Your task to perform on an android device: Go to Yahoo.com Image 0: 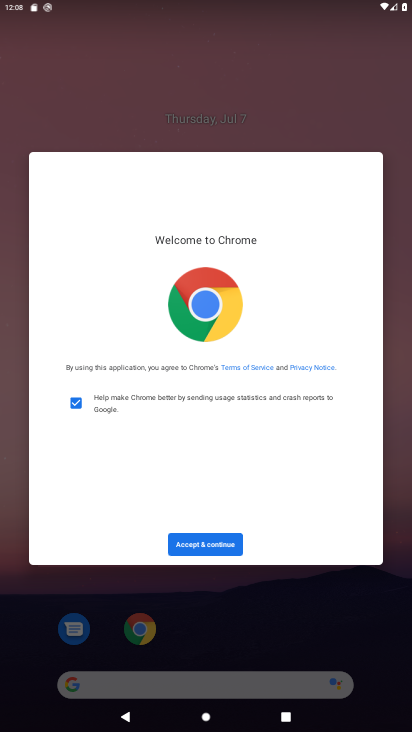
Step 0: click (222, 545)
Your task to perform on an android device: Go to Yahoo.com Image 1: 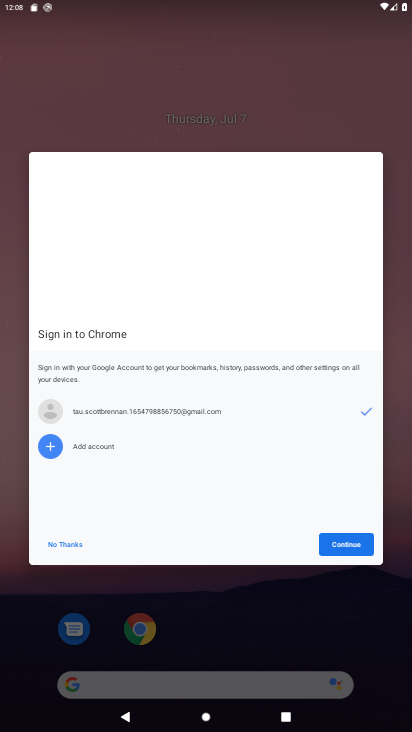
Step 1: click (340, 547)
Your task to perform on an android device: Go to Yahoo.com Image 2: 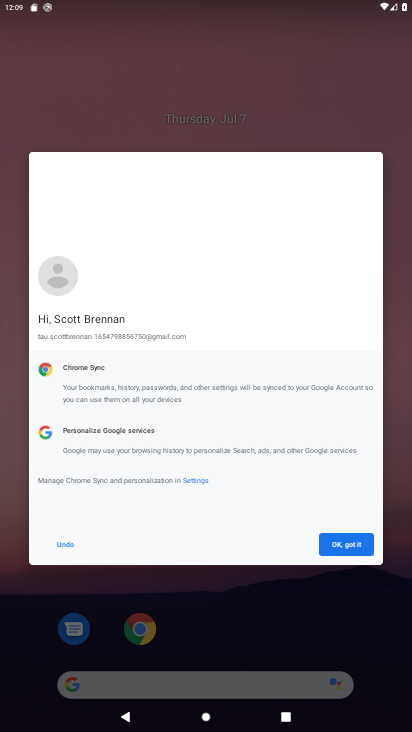
Step 2: click (342, 546)
Your task to perform on an android device: Go to Yahoo.com Image 3: 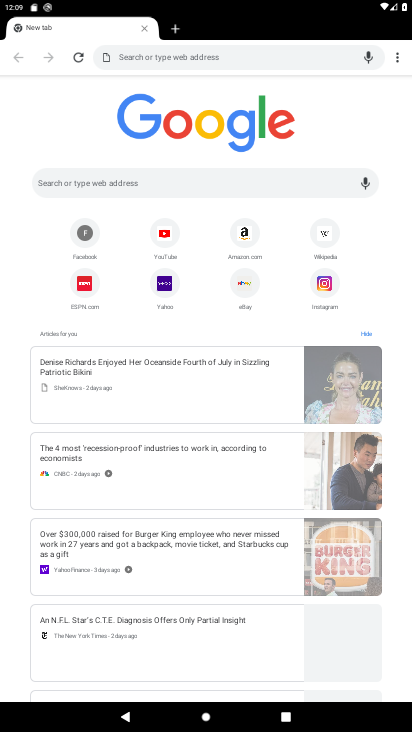
Step 3: click (167, 285)
Your task to perform on an android device: Go to Yahoo.com Image 4: 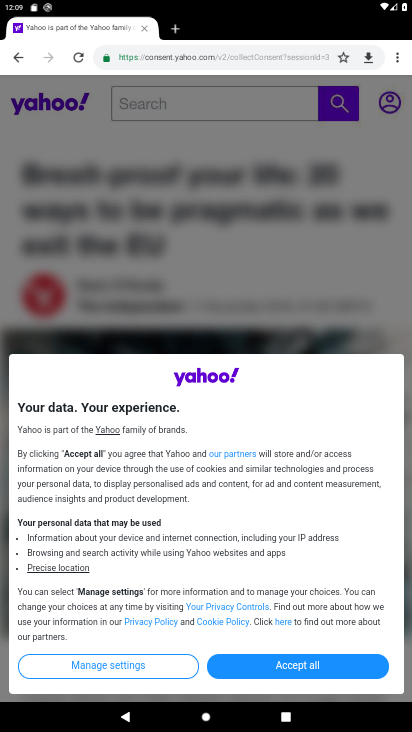
Step 4: click (286, 666)
Your task to perform on an android device: Go to Yahoo.com Image 5: 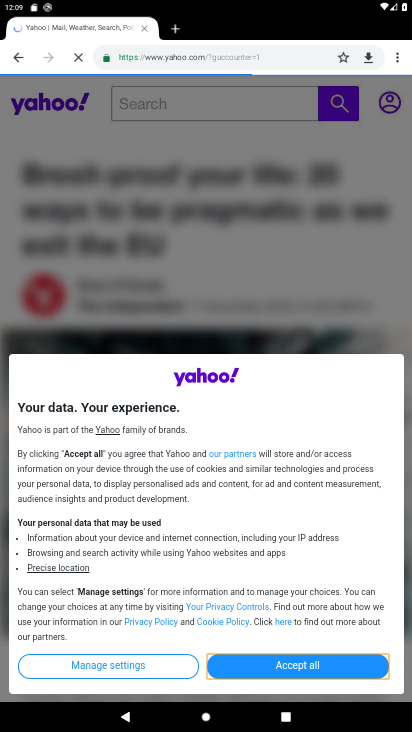
Step 5: task complete